Your task to perform on an android device: Search for the best 4K TV Image 0: 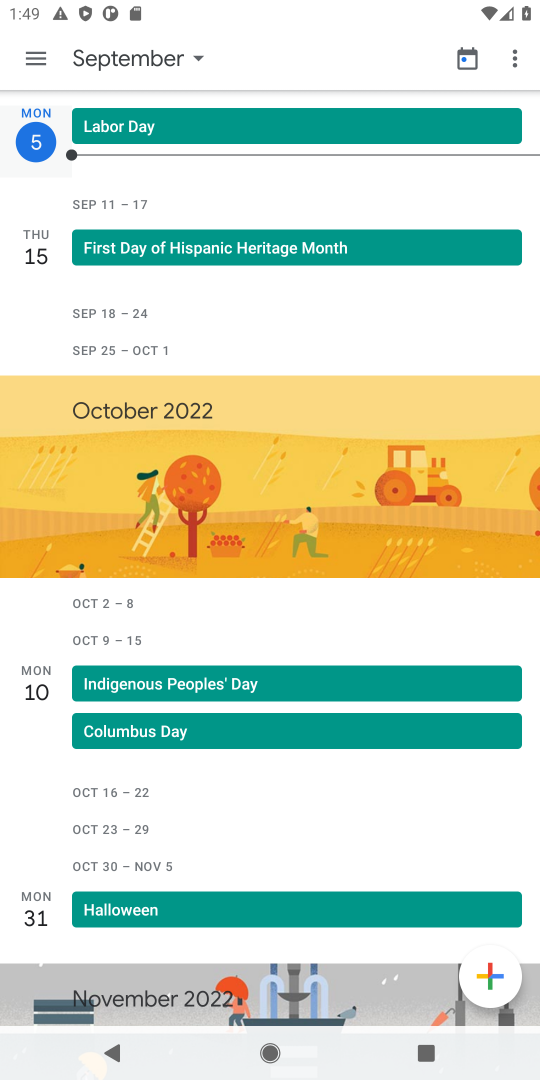
Step 0: press home button
Your task to perform on an android device: Search for the best 4K TV Image 1: 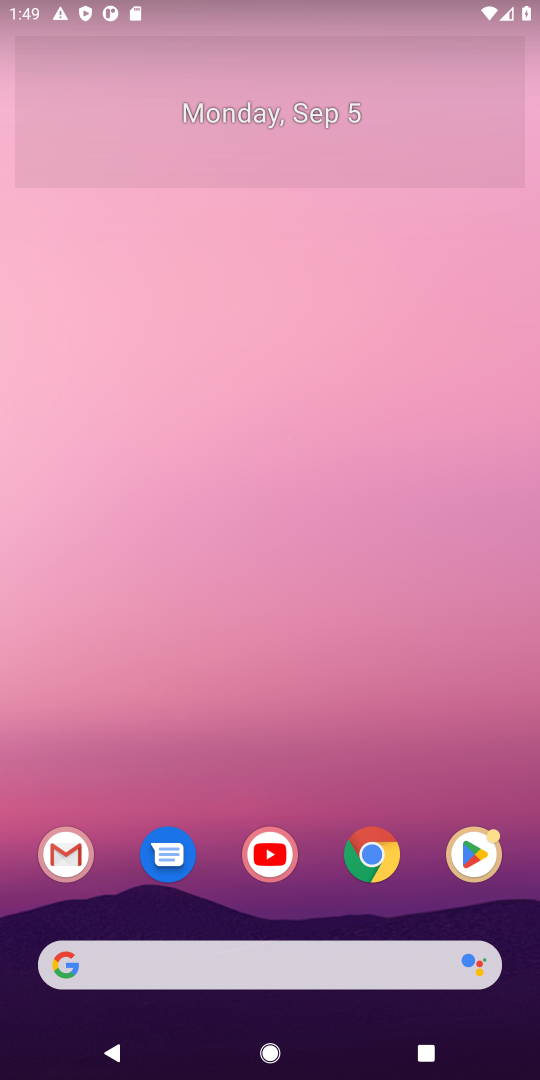
Step 1: click (237, 951)
Your task to perform on an android device: Search for the best 4K TV Image 2: 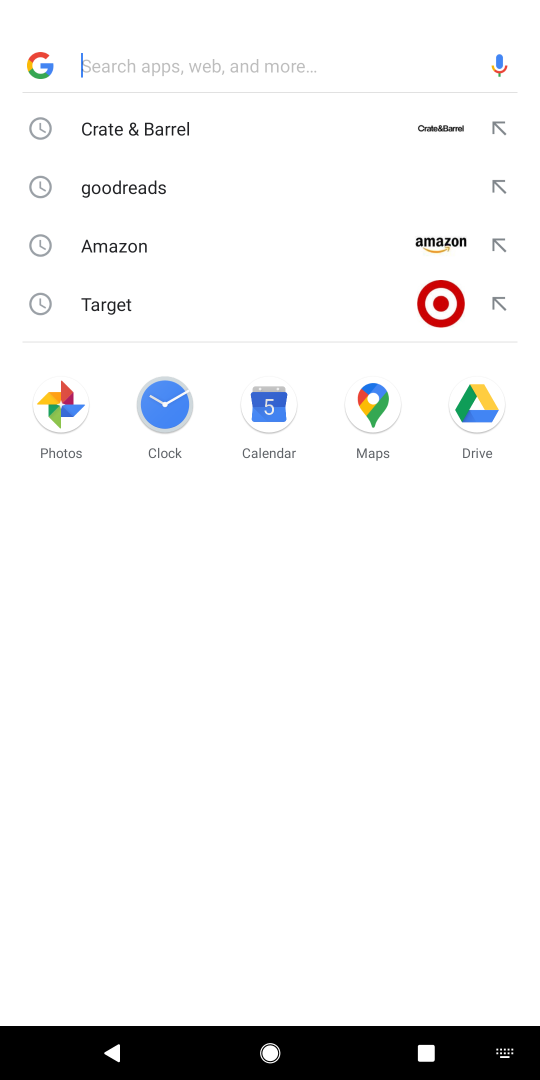
Step 2: type "best 4k tv"
Your task to perform on an android device: Search for the best 4K TV Image 3: 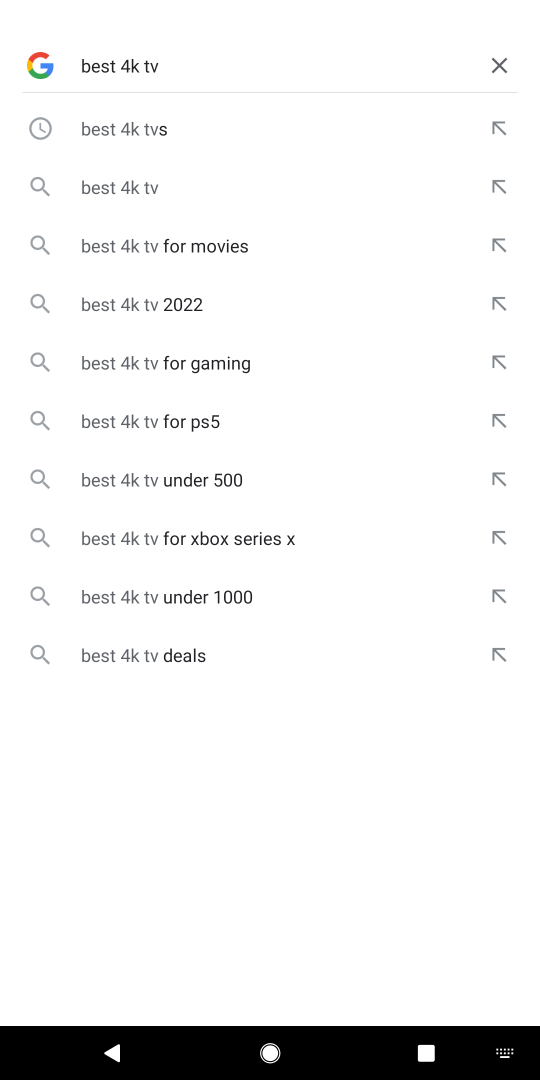
Step 3: press enter
Your task to perform on an android device: Search for the best 4K TV Image 4: 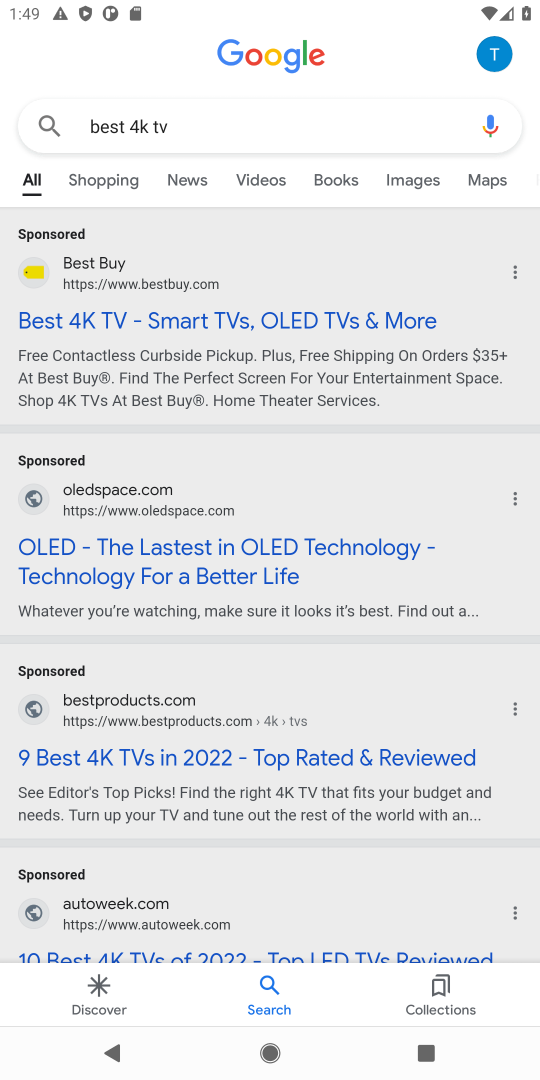
Step 4: click (249, 317)
Your task to perform on an android device: Search for the best 4K TV Image 5: 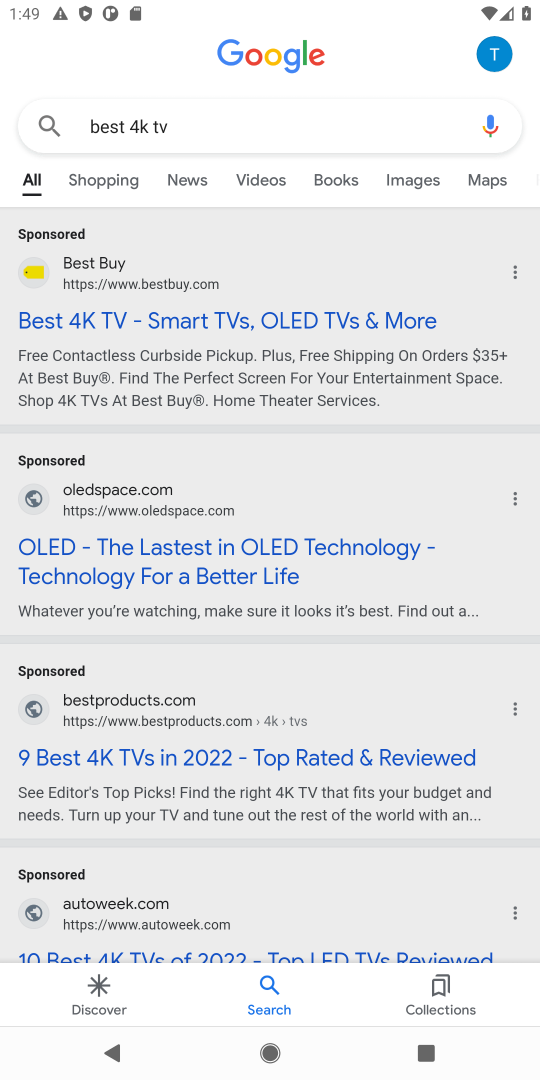
Step 5: click (319, 315)
Your task to perform on an android device: Search for the best 4K TV Image 6: 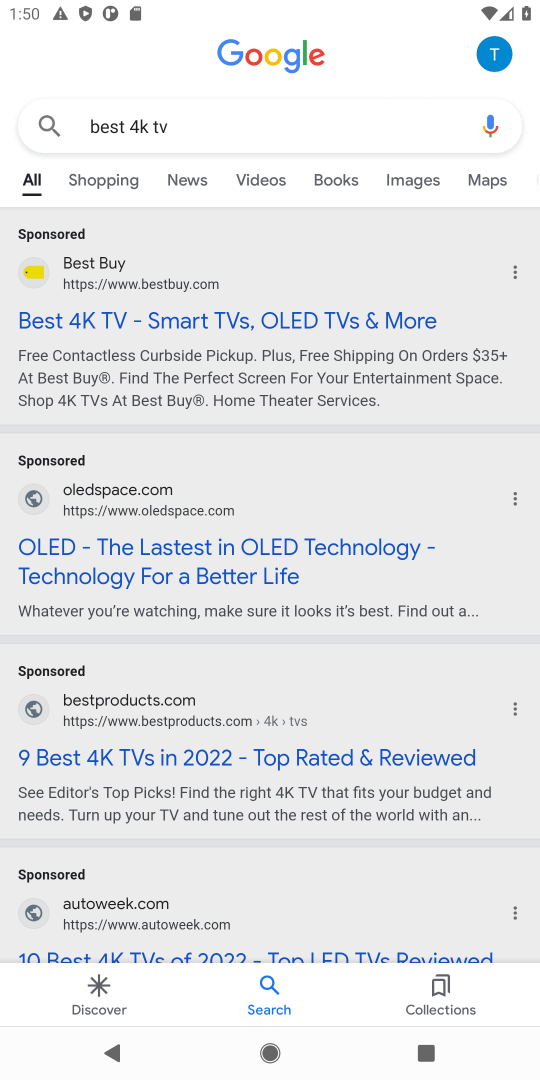
Step 6: click (313, 323)
Your task to perform on an android device: Search for the best 4K TV Image 7: 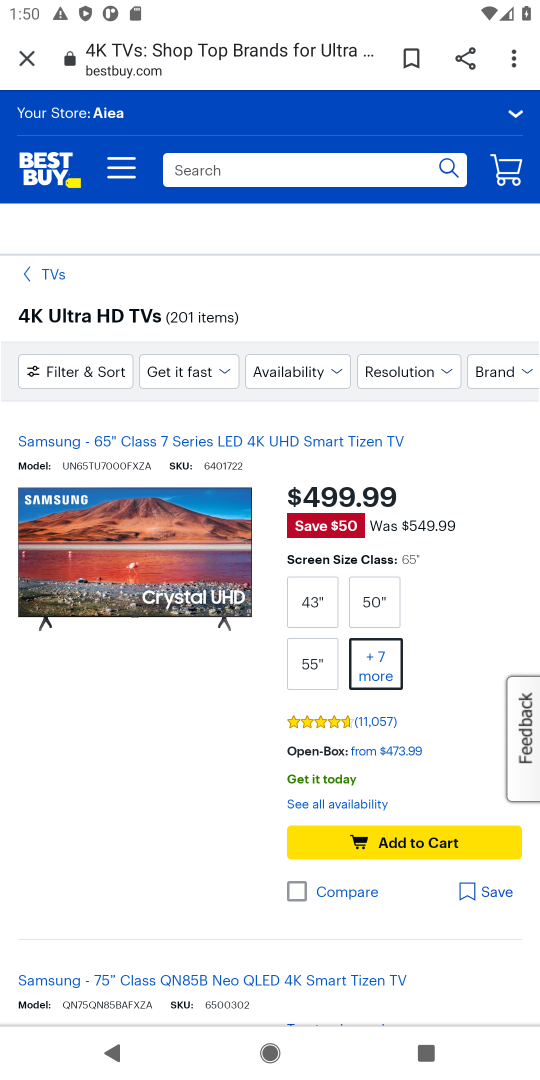
Step 7: task complete